Your task to perform on an android device: toggle wifi Image 0: 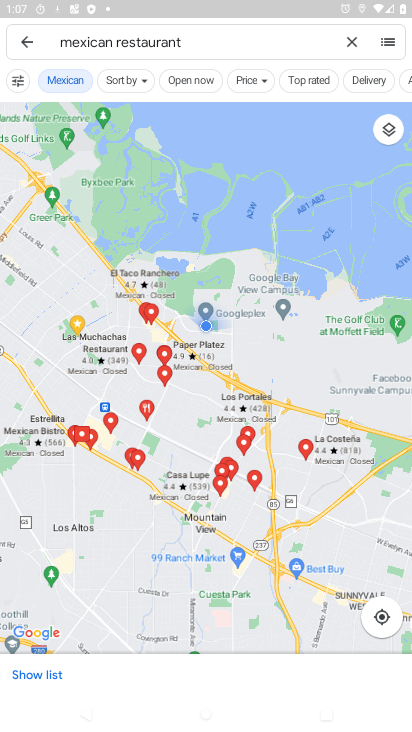
Step 0: press home button
Your task to perform on an android device: toggle wifi Image 1: 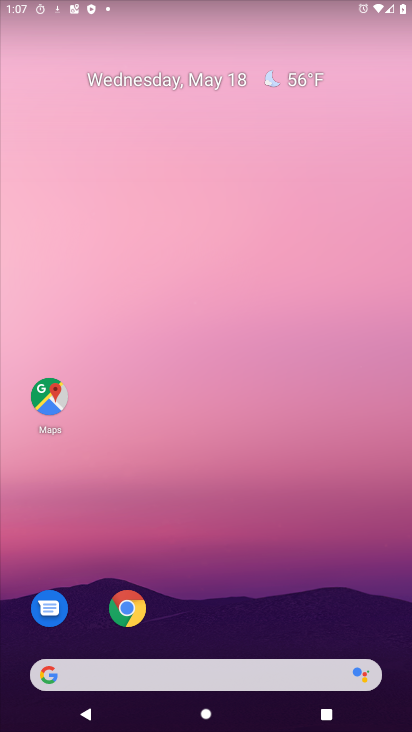
Step 1: drag from (254, 690) to (257, 148)
Your task to perform on an android device: toggle wifi Image 2: 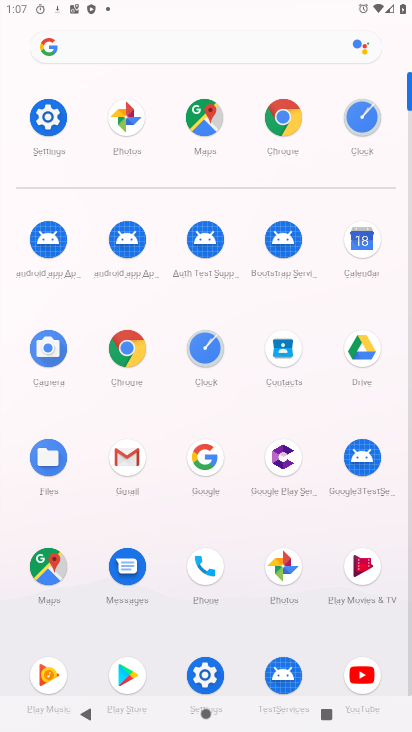
Step 2: click (47, 110)
Your task to perform on an android device: toggle wifi Image 3: 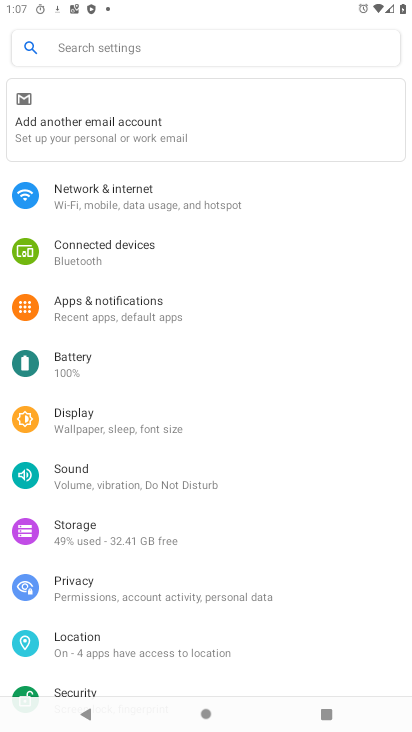
Step 3: click (118, 188)
Your task to perform on an android device: toggle wifi Image 4: 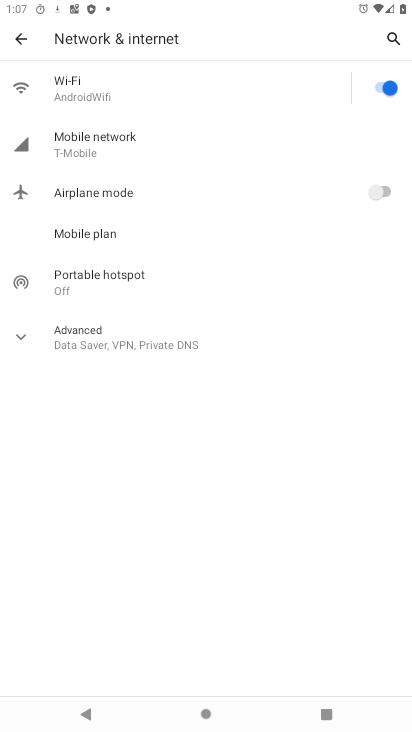
Step 4: click (122, 93)
Your task to perform on an android device: toggle wifi Image 5: 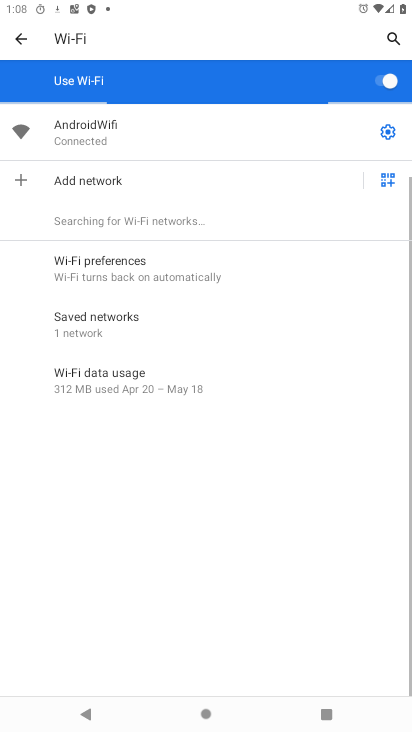
Step 5: task complete